Your task to perform on an android device: see sites visited before in the chrome app Image 0: 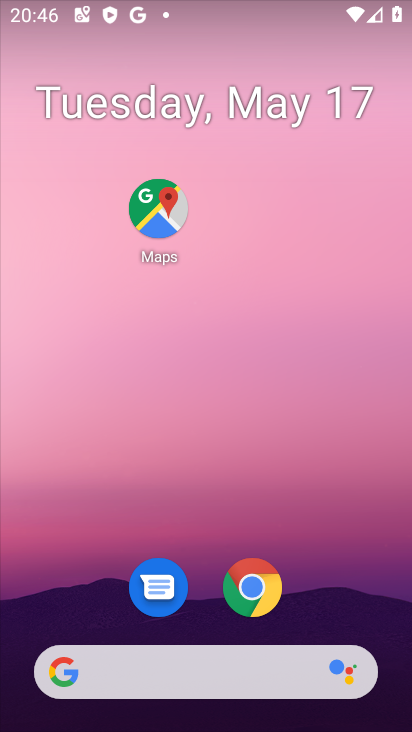
Step 0: click (259, 601)
Your task to perform on an android device: see sites visited before in the chrome app Image 1: 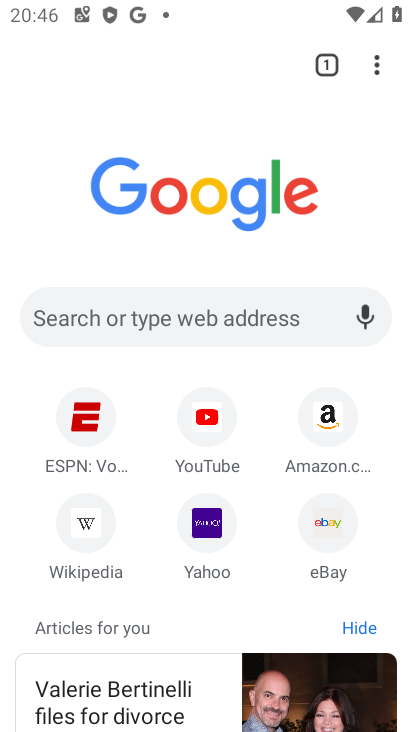
Step 1: click (380, 64)
Your task to perform on an android device: see sites visited before in the chrome app Image 2: 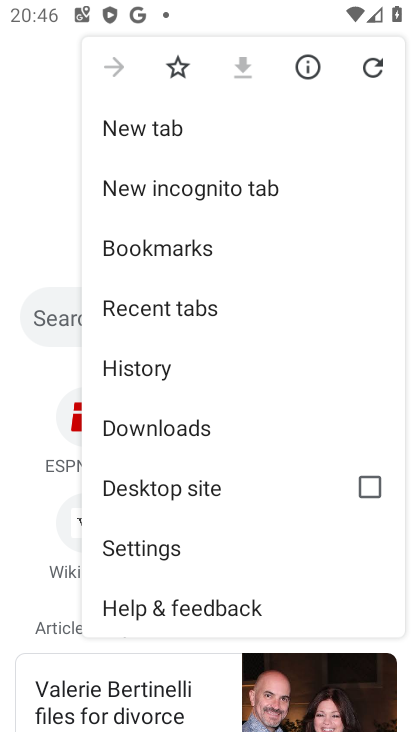
Step 2: click (158, 363)
Your task to perform on an android device: see sites visited before in the chrome app Image 3: 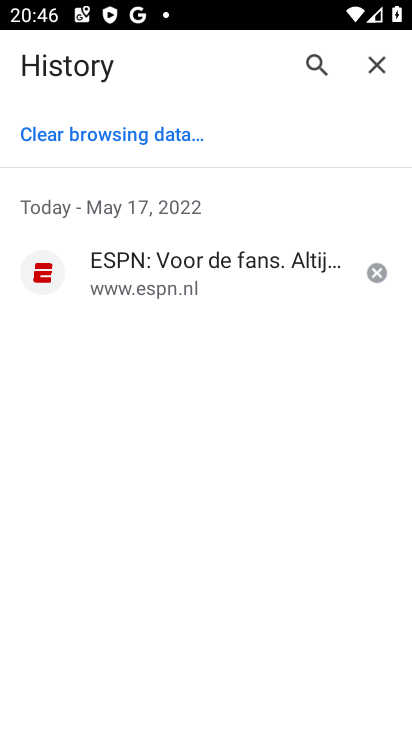
Step 3: task complete